Your task to perform on an android device: Go to Maps Image 0: 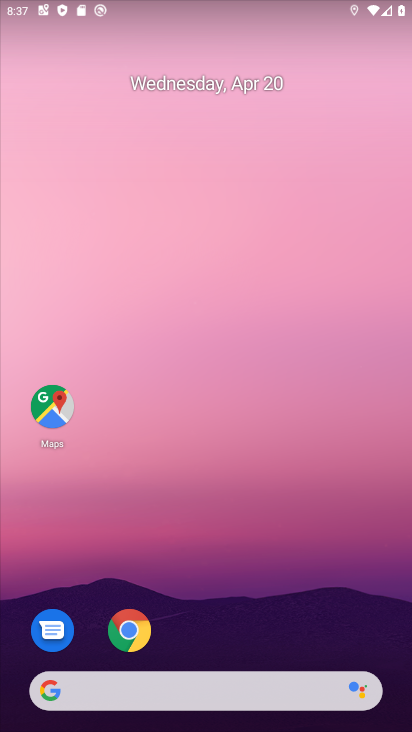
Step 0: click (60, 399)
Your task to perform on an android device: Go to Maps Image 1: 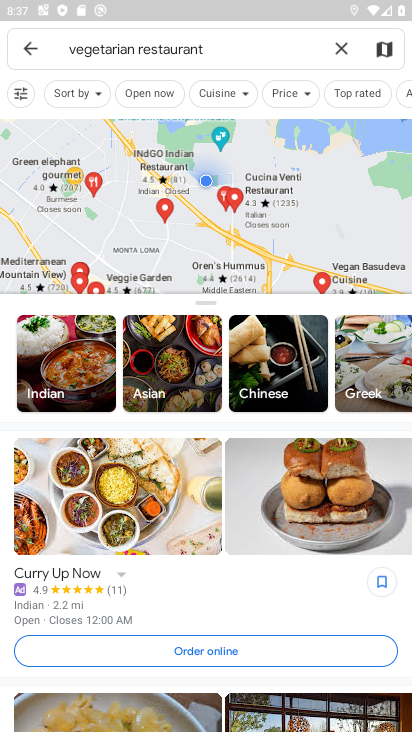
Step 1: task complete